Your task to perform on an android device: Search for sushi restaurants on Maps Image 0: 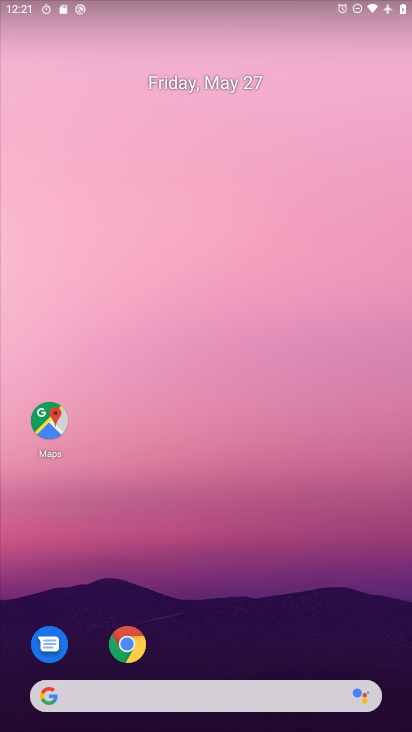
Step 0: click (67, 407)
Your task to perform on an android device: Search for sushi restaurants on Maps Image 1: 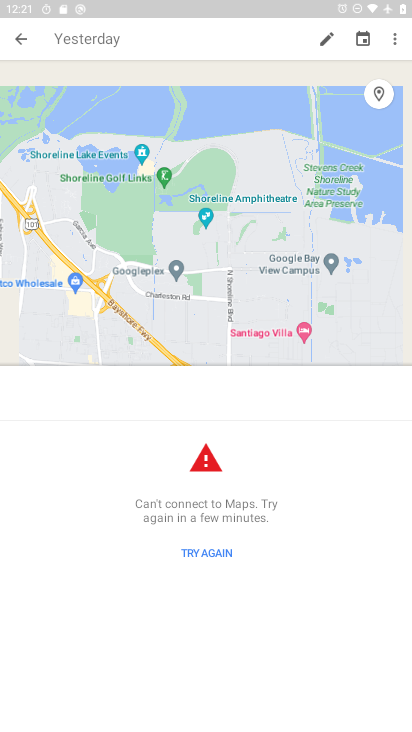
Step 1: click (25, 33)
Your task to perform on an android device: Search for sushi restaurants on Maps Image 2: 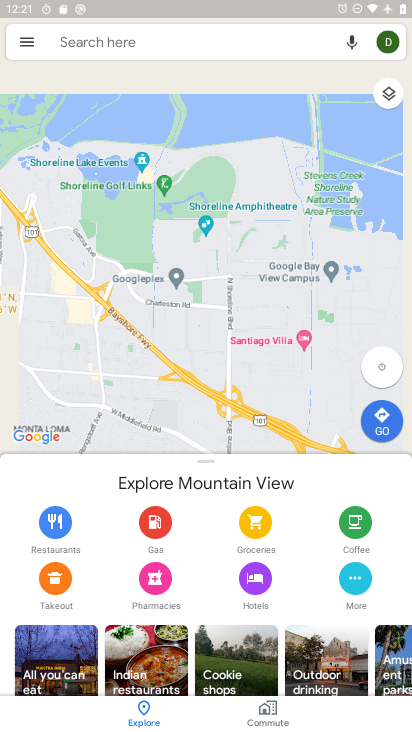
Step 2: click (168, 45)
Your task to perform on an android device: Search for sushi restaurants on Maps Image 3: 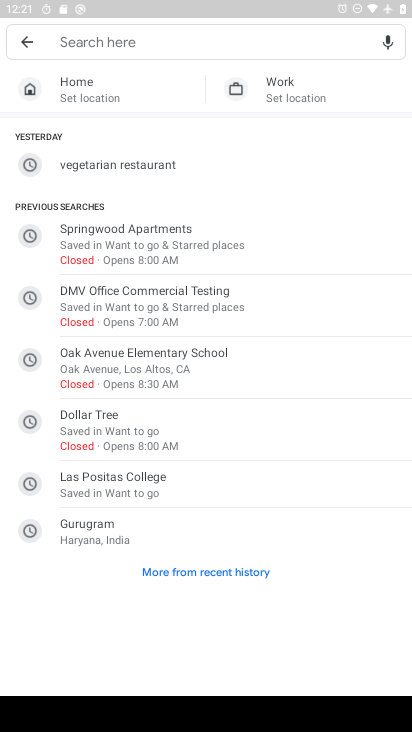
Step 3: type "sushi restaurants"
Your task to perform on an android device: Search for sushi restaurants on Maps Image 4: 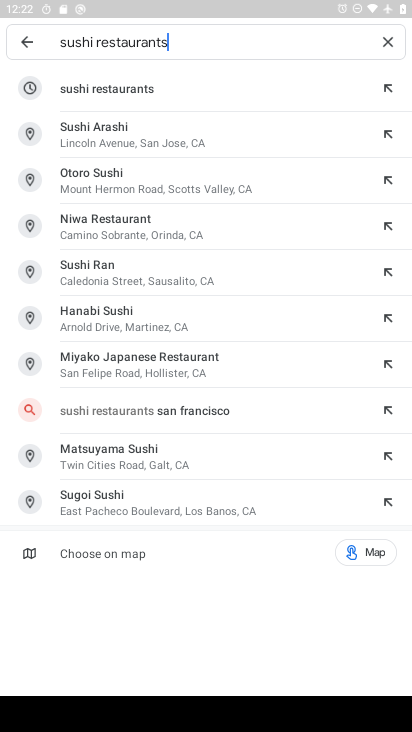
Step 4: click (146, 94)
Your task to perform on an android device: Search for sushi restaurants on Maps Image 5: 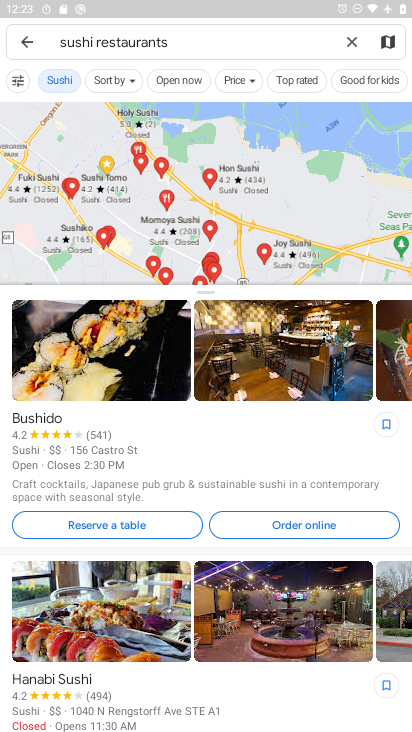
Step 5: task complete